Your task to perform on an android device: turn notification dots on Image 0: 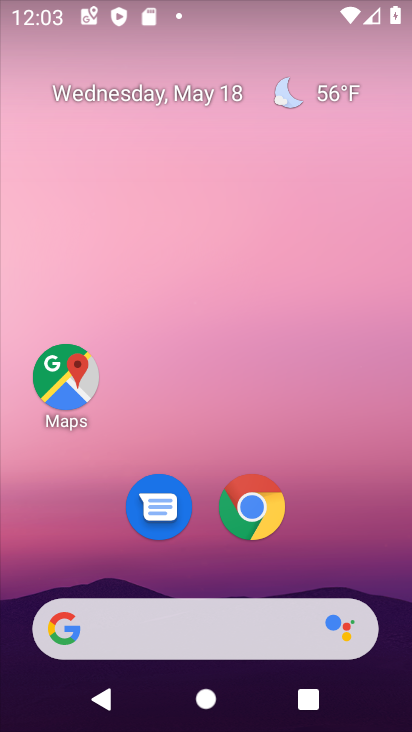
Step 0: drag from (342, 567) to (226, 90)
Your task to perform on an android device: turn notification dots on Image 1: 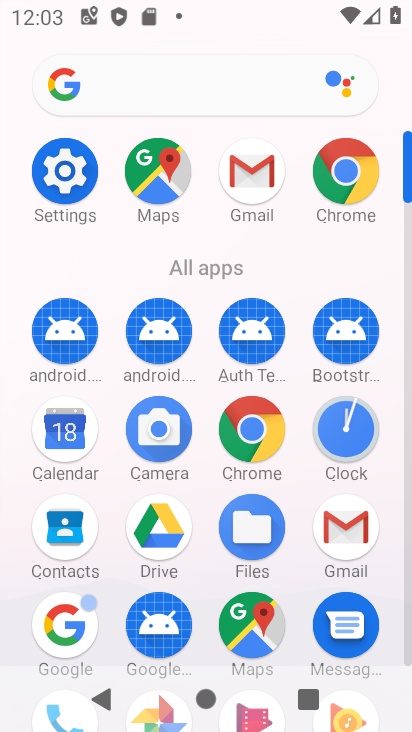
Step 1: click (60, 196)
Your task to perform on an android device: turn notification dots on Image 2: 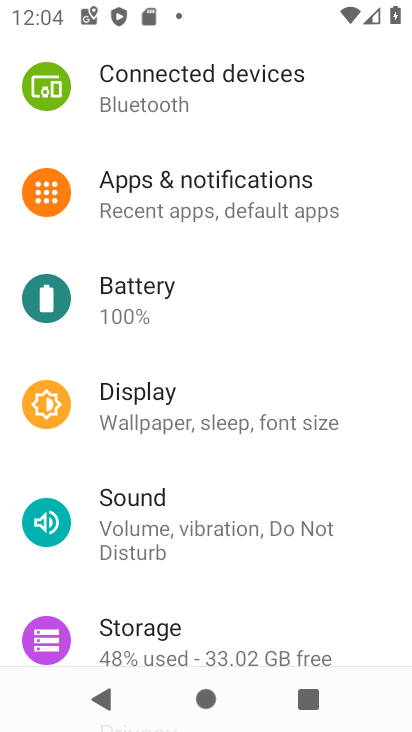
Step 2: click (183, 180)
Your task to perform on an android device: turn notification dots on Image 3: 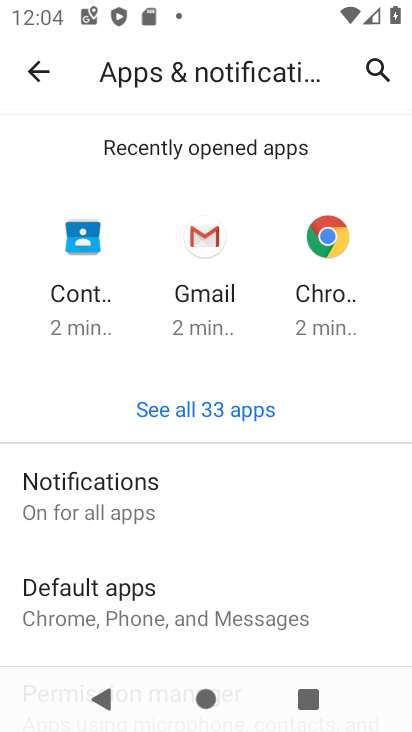
Step 3: click (176, 486)
Your task to perform on an android device: turn notification dots on Image 4: 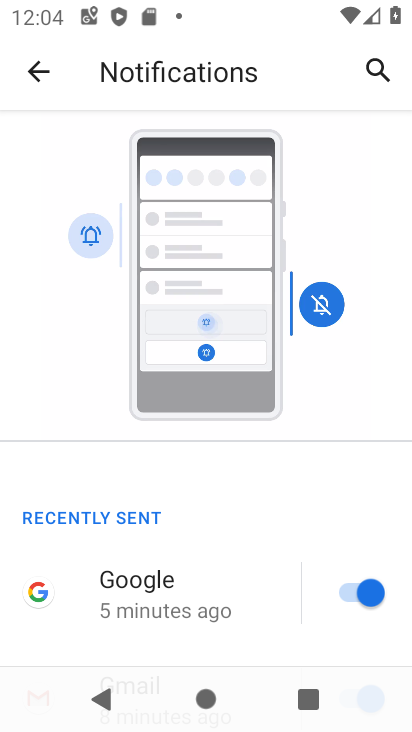
Step 4: drag from (250, 622) to (186, 59)
Your task to perform on an android device: turn notification dots on Image 5: 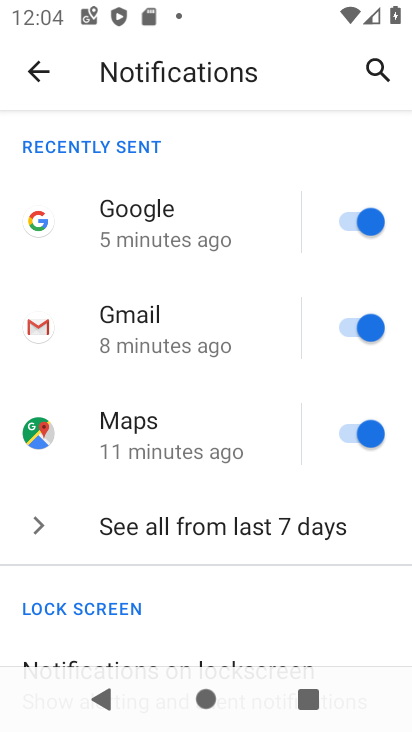
Step 5: drag from (284, 596) to (234, 43)
Your task to perform on an android device: turn notification dots on Image 6: 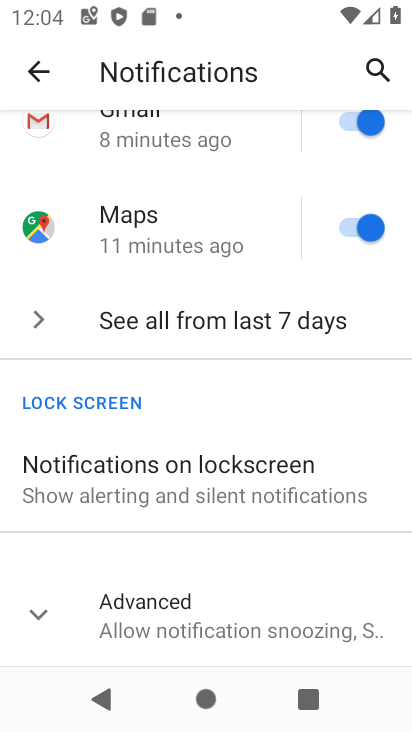
Step 6: click (342, 632)
Your task to perform on an android device: turn notification dots on Image 7: 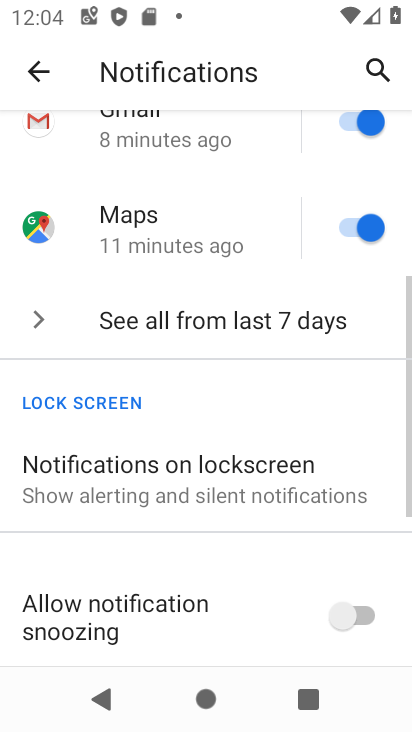
Step 7: task complete